Your task to perform on an android device: stop showing notifications on the lock screen Image 0: 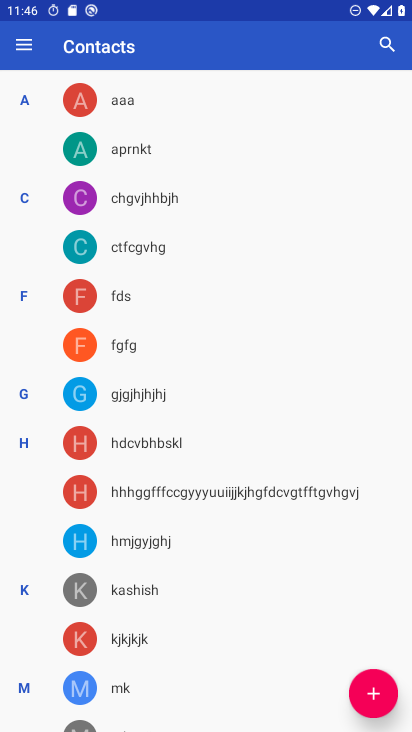
Step 0: press home button
Your task to perform on an android device: stop showing notifications on the lock screen Image 1: 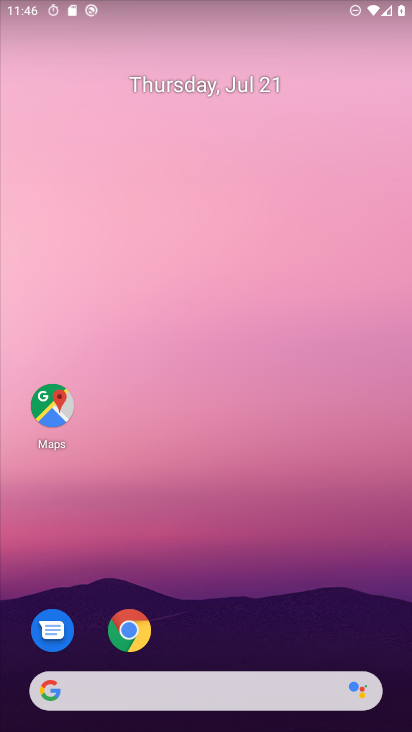
Step 1: drag from (219, 628) to (208, 152)
Your task to perform on an android device: stop showing notifications on the lock screen Image 2: 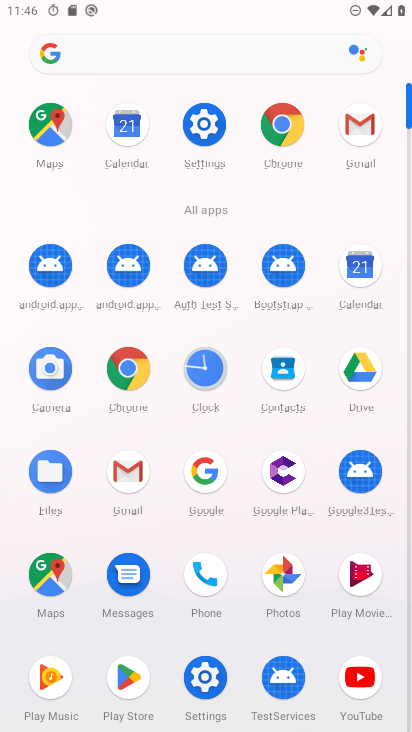
Step 2: click (192, 120)
Your task to perform on an android device: stop showing notifications on the lock screen Image 3: 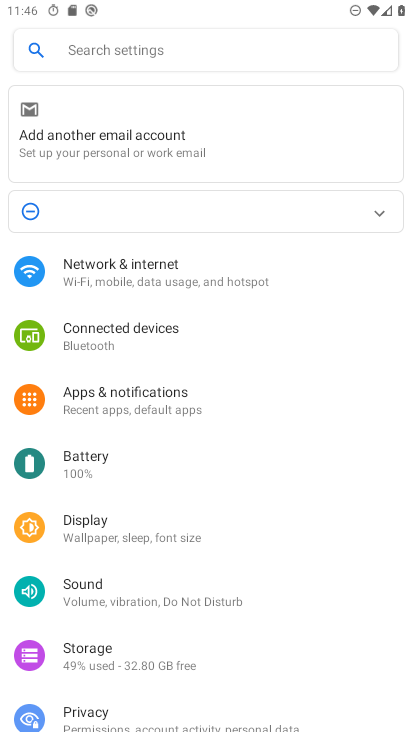
Step 3: click (147, 399)
Your task to perform on an android device: stop showing notifications on the lock screen Image 4: 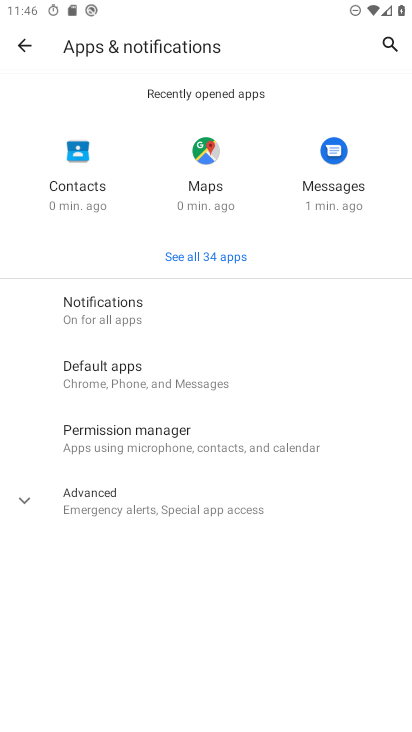
Step 4: click (112, 311)
Your task to perform on an android device: stop showing notifications on the lock screen Image 5: 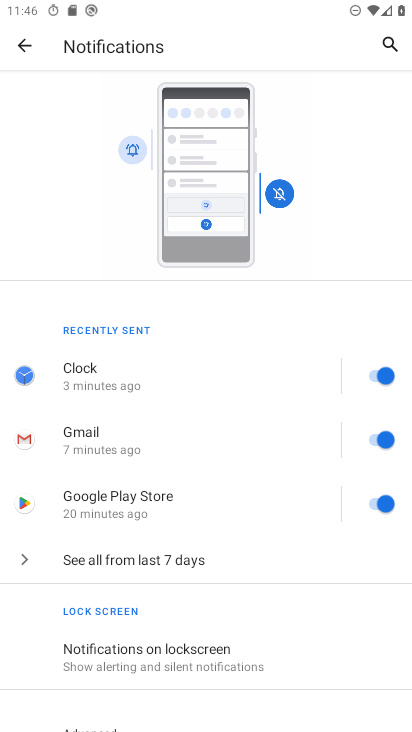
Step 5: click (176, 653)
Your task to perform on an android device: stop showing notifications on the lock screen Image 6: 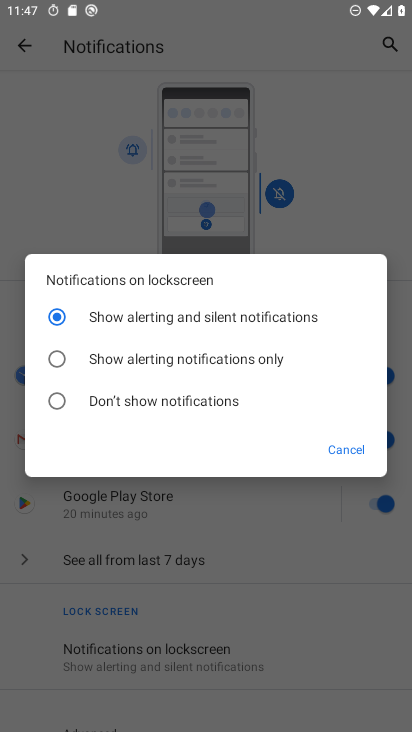
Step 6: click (57, 397)
Your task to perform on an android device: stop showing notifications on the lock screen Image 7: 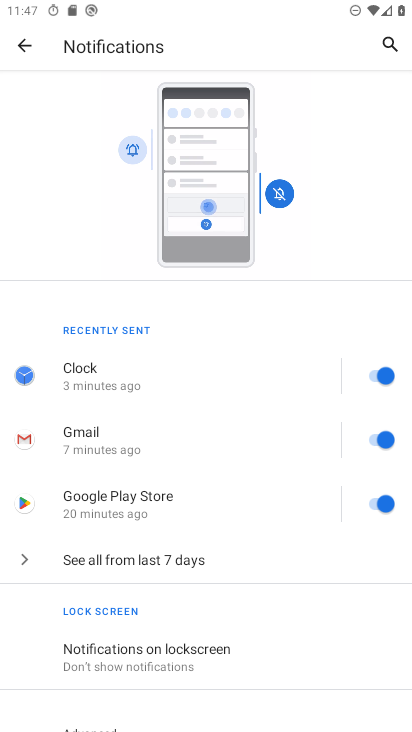
Step 7: task complete